Your task to perform on an android device: Search for a new desk on IKEA. Image 0: 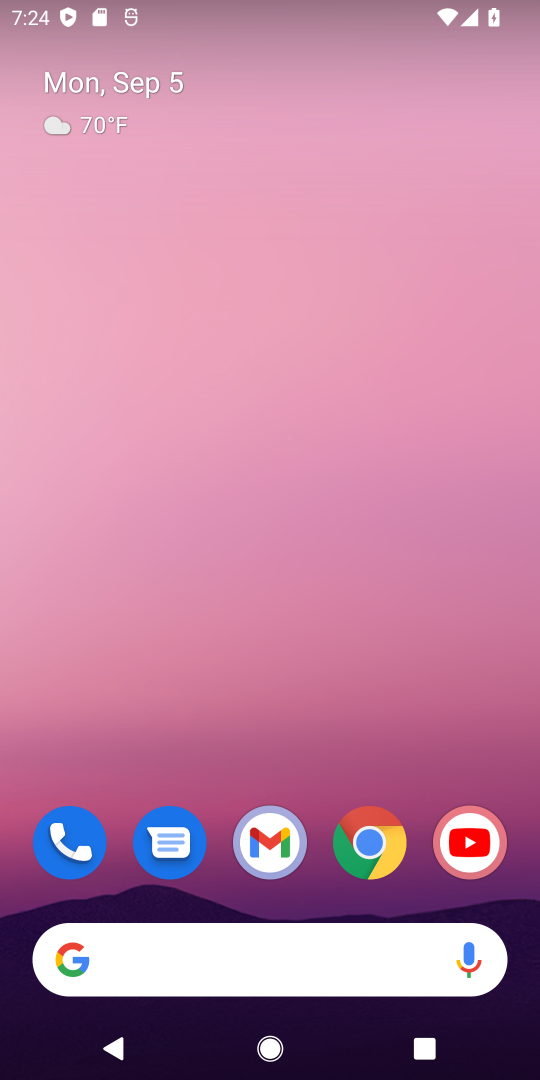
Step 0: click (363, 841)
Your task to perform on an android device: Search for a new desk on IKEA. Image 1: 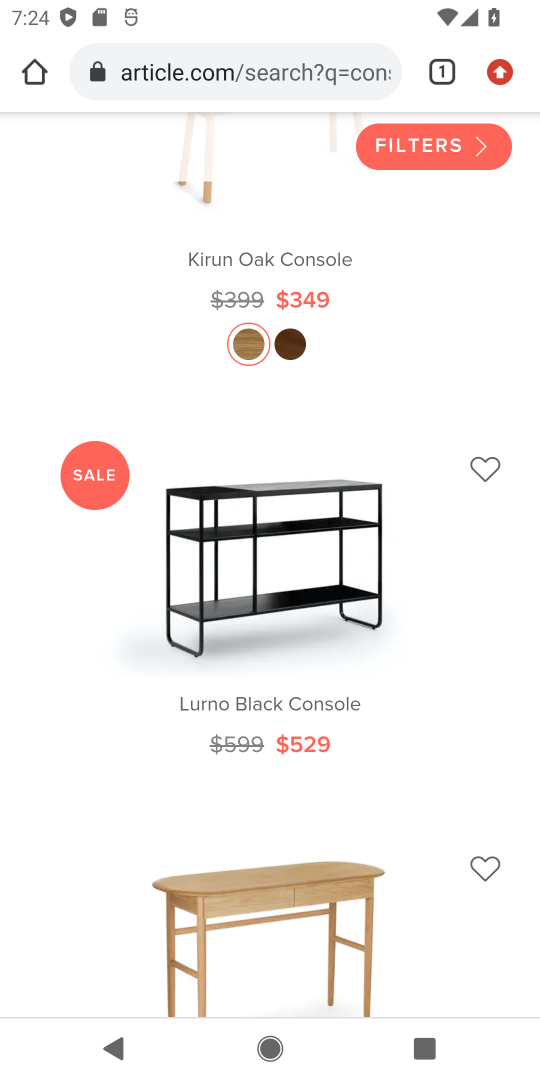
Step 1: click (347, 67)
Your task to perform on an android device: Search for a new desk on IKEA. Image 2: 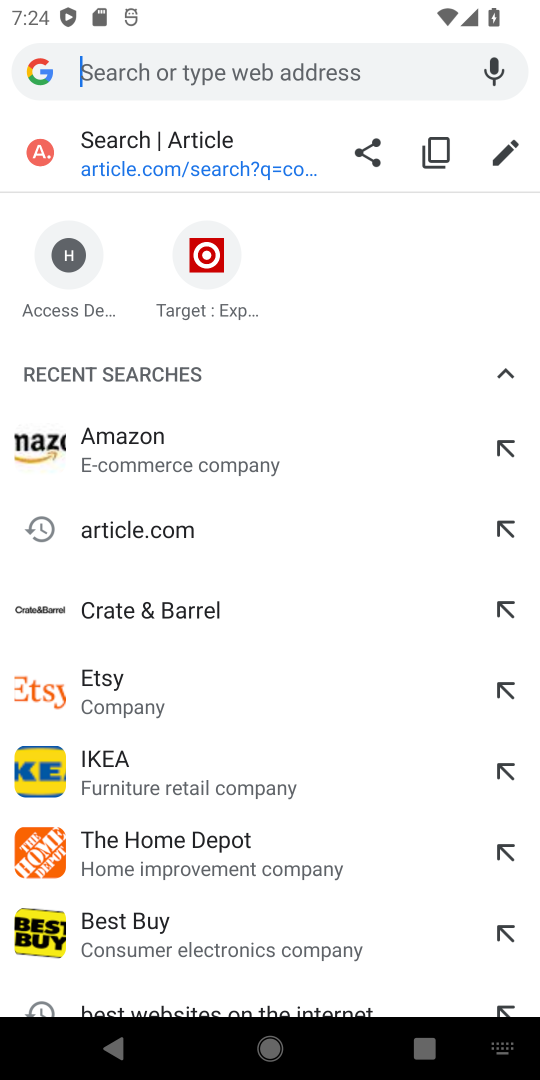
Step 2: type "IKEA"
Your task to perform on an android device: Search for a new desk on IKEA. Image 3: 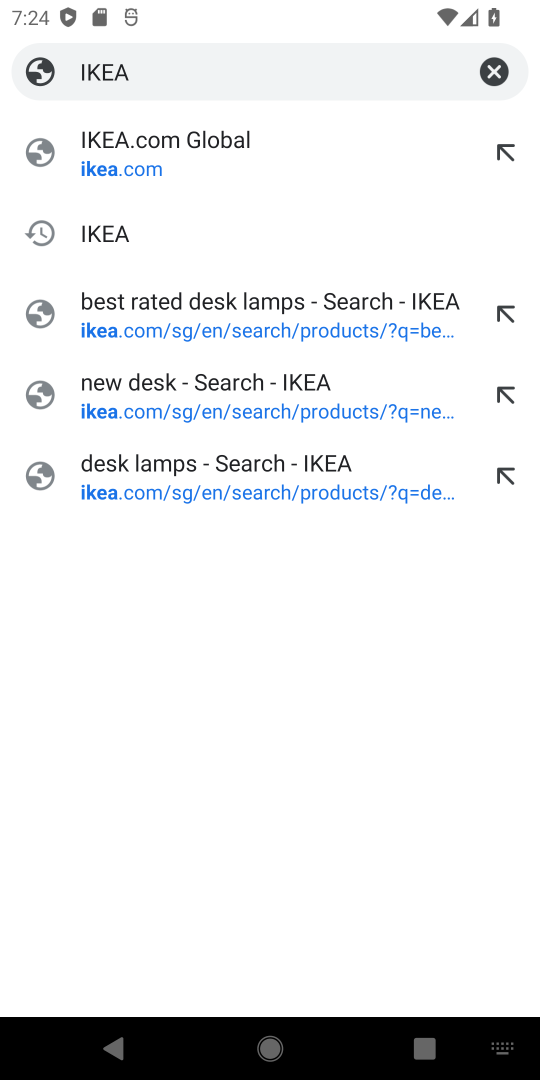
Step 3: click (120, 237)
Your task to perform on an android device: Search for a new desk on IKEA. Image 4: 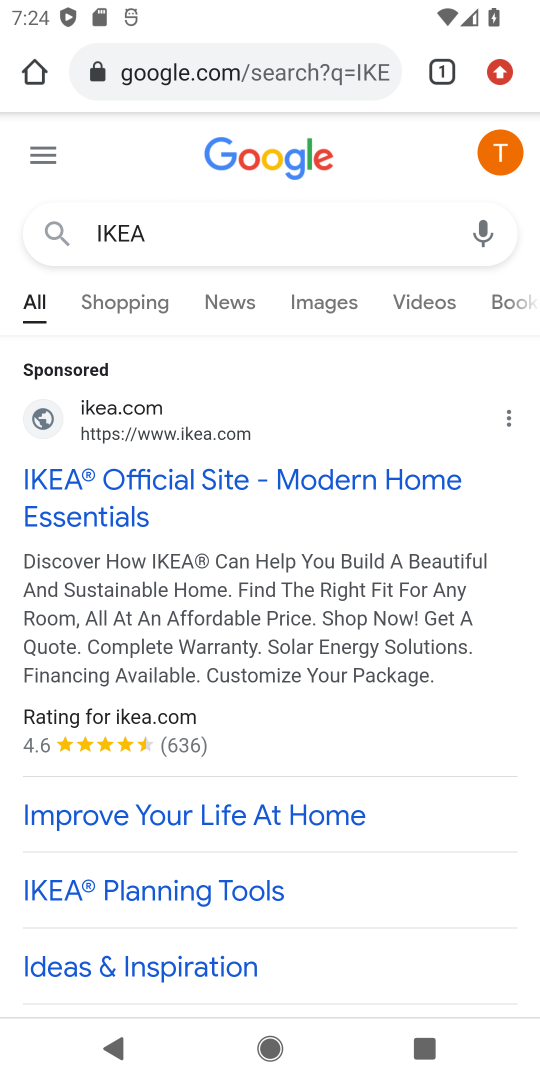
Step 4: click (202, 523)
Your task to perform on an android device: Search for a new desk on IKEA. Image 5: 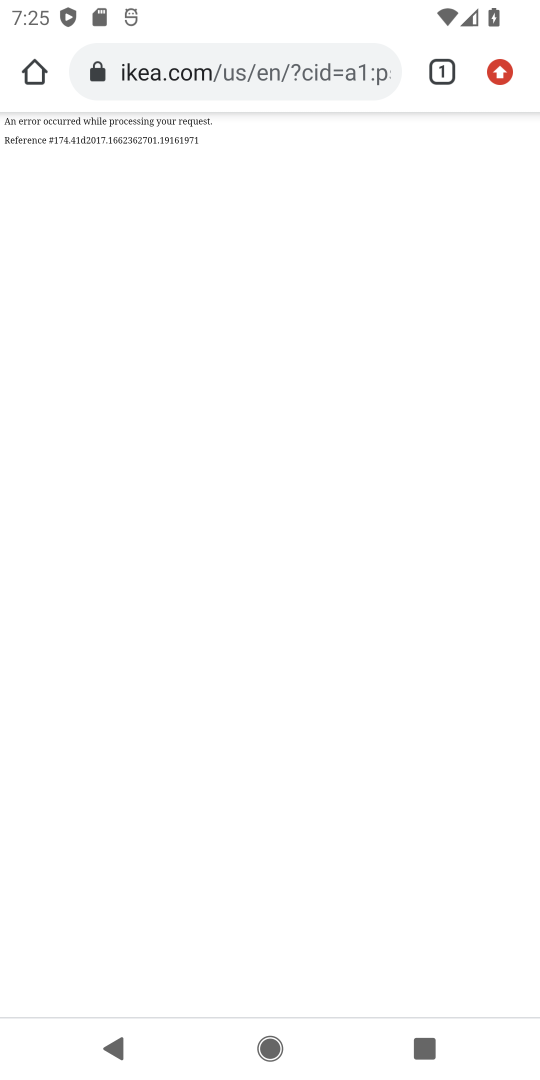
Step 5: press back button
Your task to perform on an android device: Search for a new desk on IKEA. Image 6: 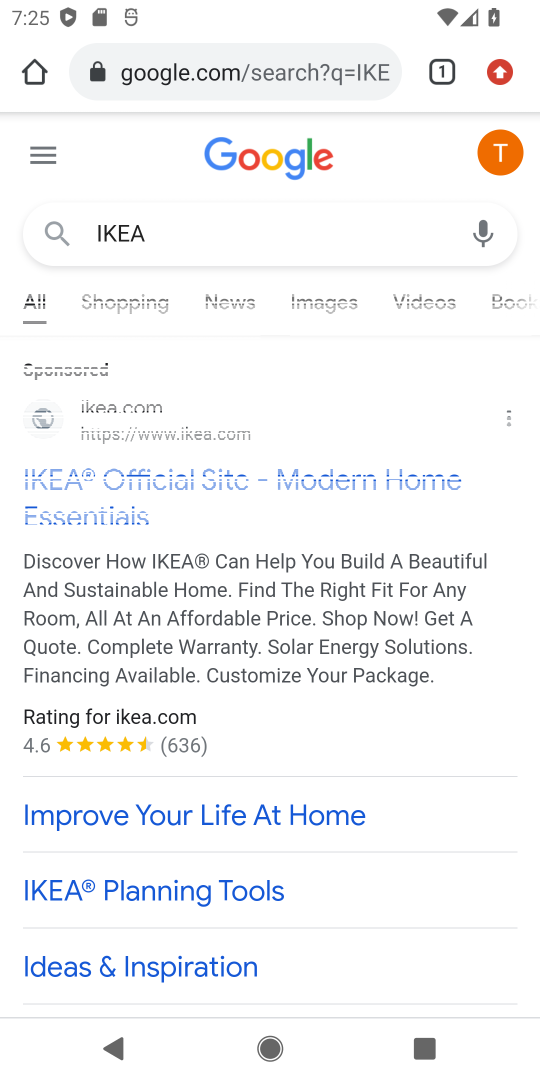
Step 6: drag from (304, 961) to (433, 625)
Your task to perform on an android device: Search for a new desk on IKEA. Image 7: 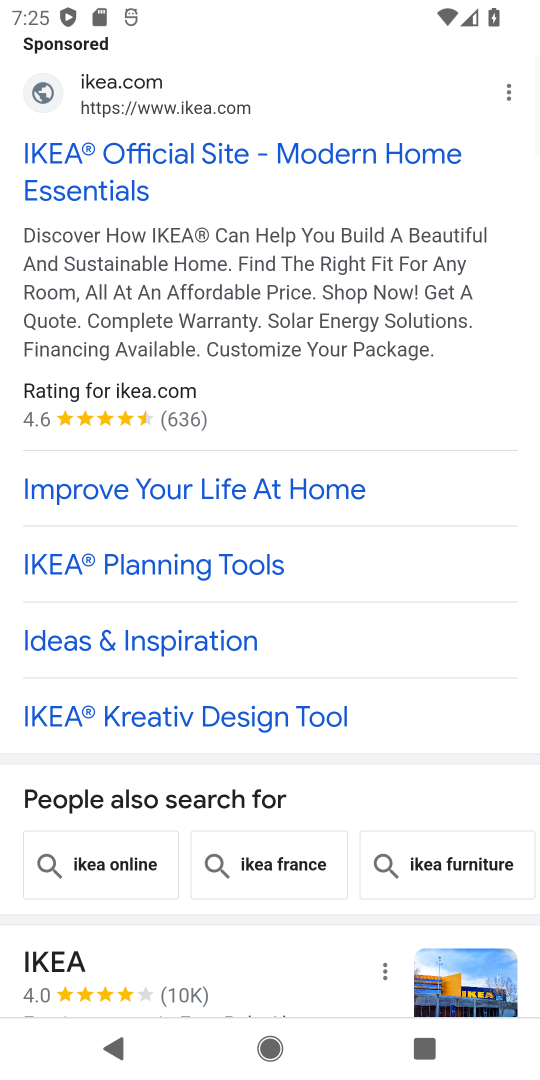
Step 7: drag from (334, 802) to (413, 578)
Your task to perform on an android device: Search for a new desk on IKEA. Image 8: 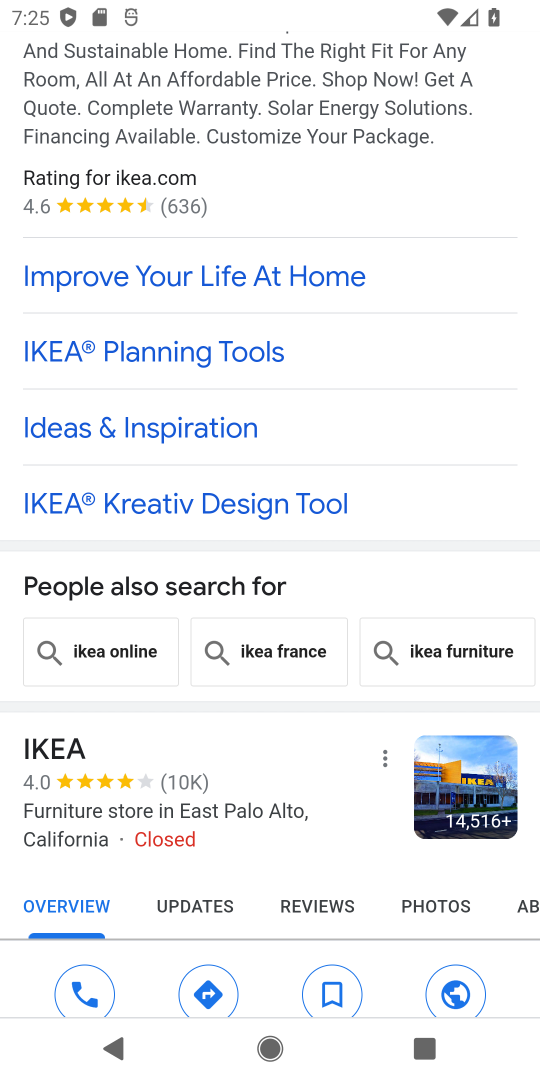
Step 8: drag from (288, 880) to (415, 545)
Your task to perform on an android device: Search for a new desk on IKEA. Image 9: 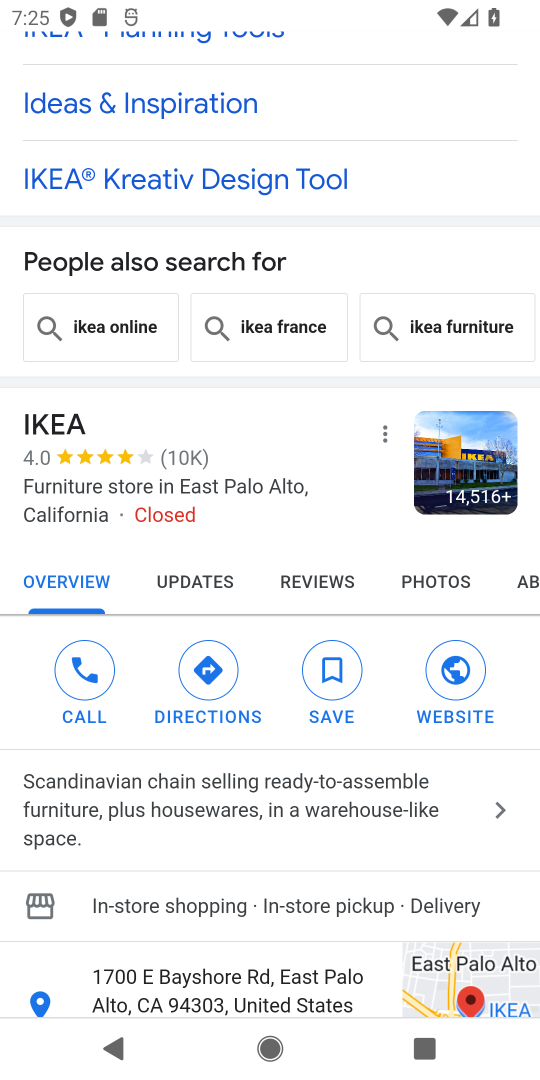
Step 9: drag from (376, 681) to (400, 638)
Your task to perform on an android device: Search for a new desk on IKEA. Image 10: 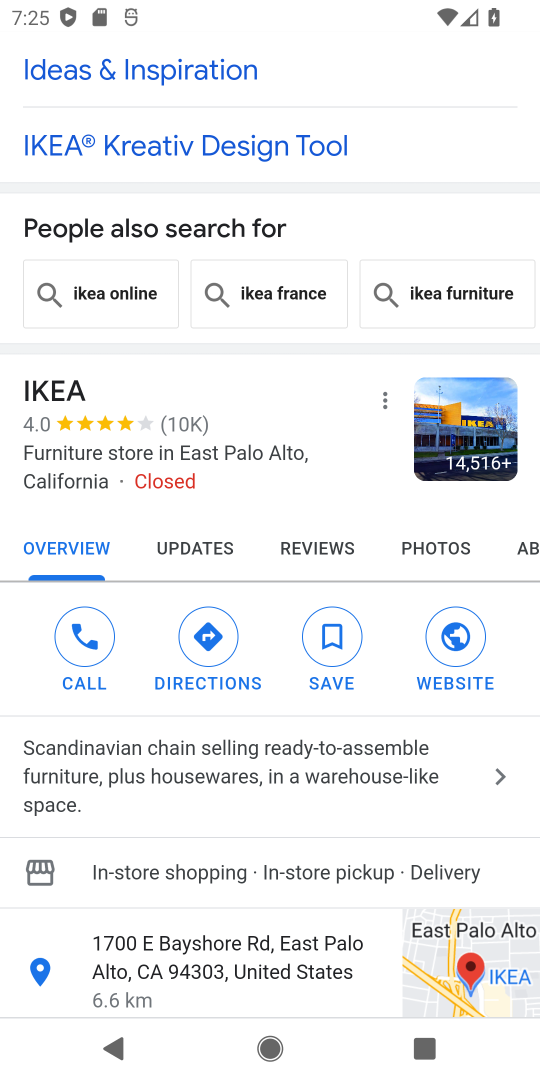
Step 10: drag from (247, 997) to (382, 562)
Your task to perform on an android device: Search for a new desk on IKEA. Image 11: 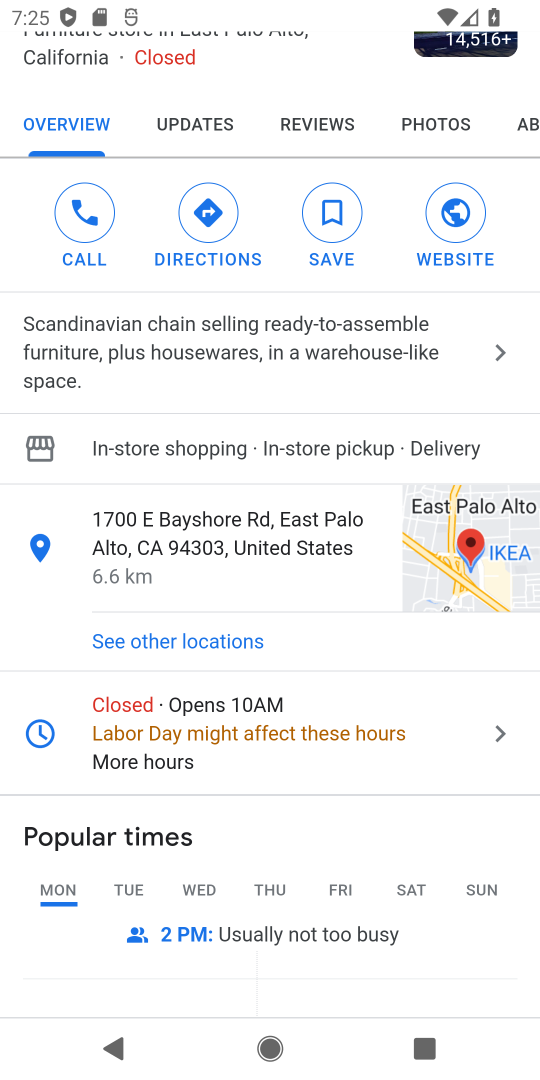
Step 11: drag from (317, 591) to (347, 505)
Your task to perform on an android device: Search for a new desk on IKEA. Image 12: 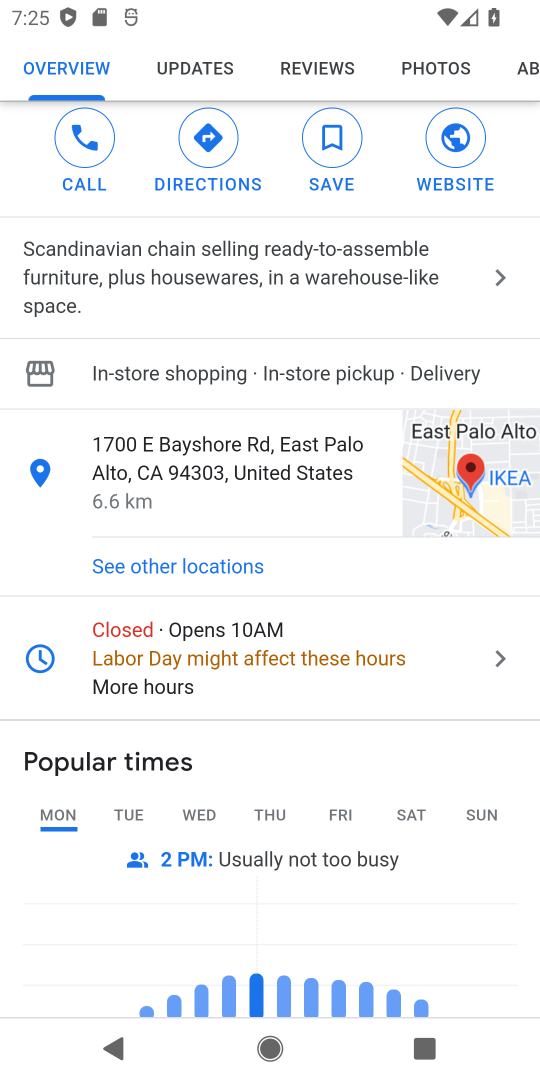
Step 12: drag from (284, 741) to (430, 414)
Your task to perform on an android device: Search for a new desk on IKEA. Image 13: 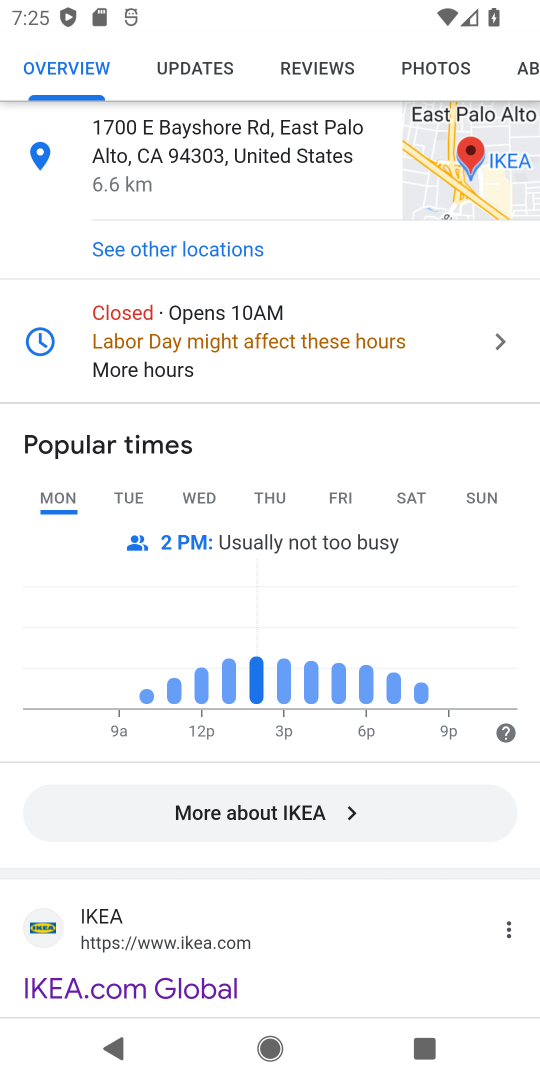
Step 13: drag from (336, 919) to (416, 615)
Your task to perform on an android device: Search for a new desk on IKEA. Image 14: 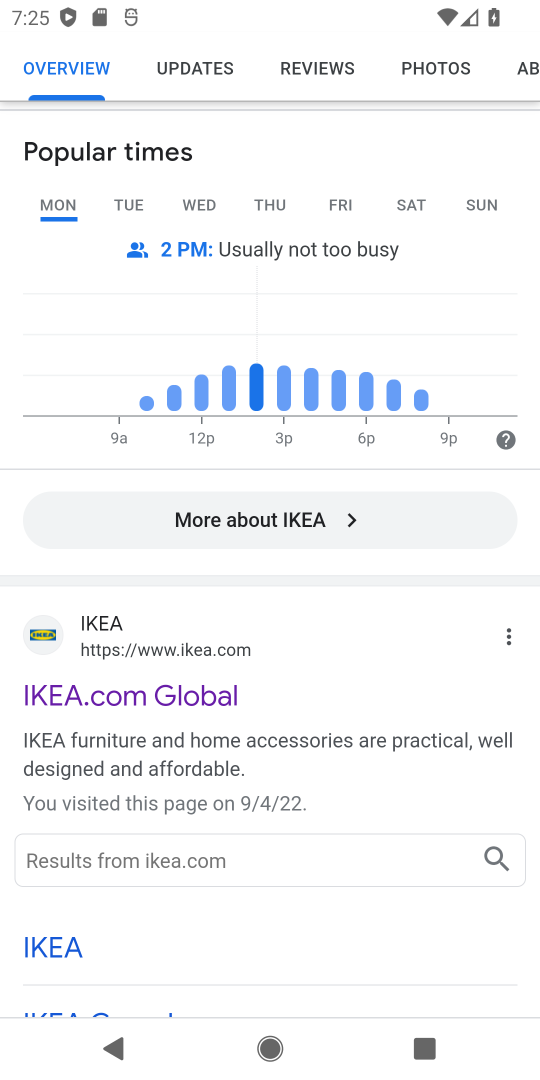
Step 14: click (251, 707)
Your task to perform on an android device: Search for a new desk on IKEA. Image 15: 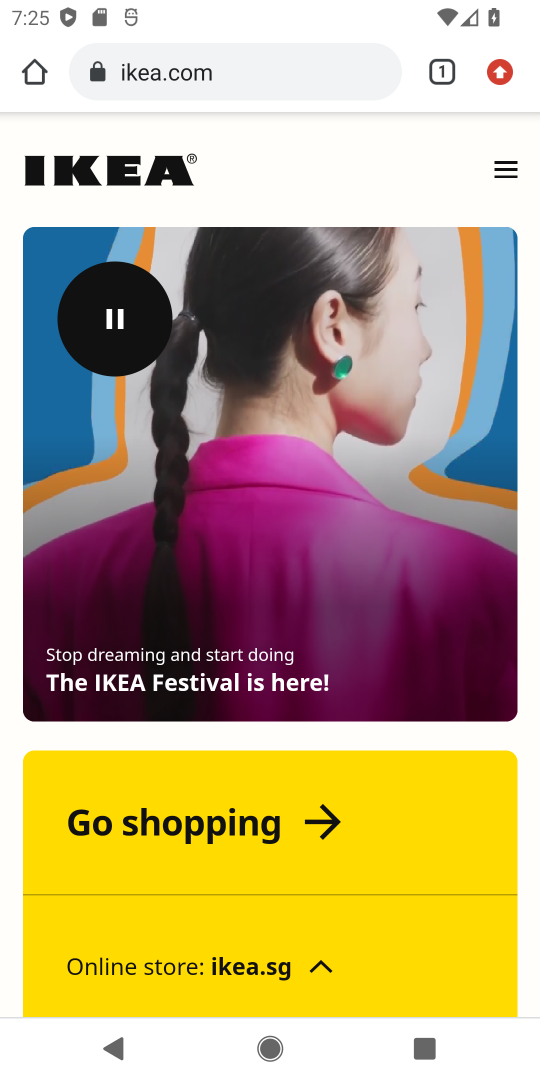
Step 15: click (199, 832)
Your task to perform on an android device: Search for a new desk on IKEA. Image 16: 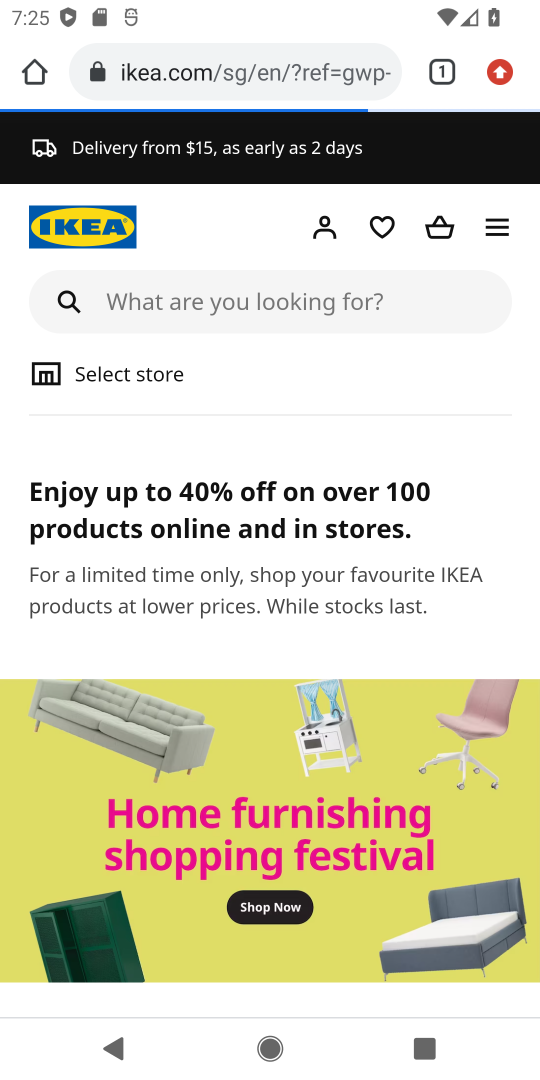
Step 16: click (280, 301)
Your task to perform on an android device: Search for a new desk on IKEA. Image 17: 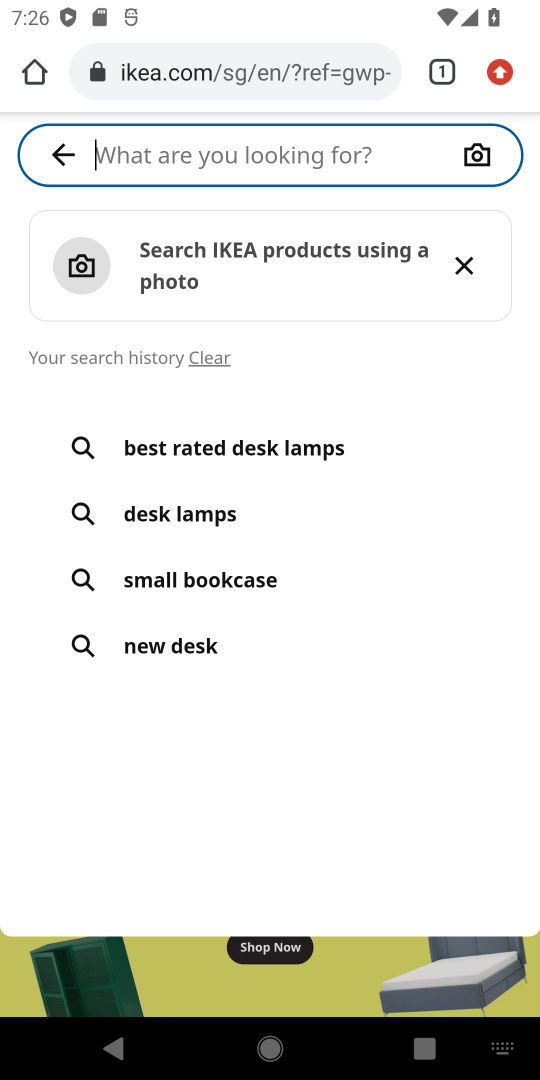
Step 17: type "new desk"
Your task to perform on an android device: Search for a new desk on IKEA. Image 18: 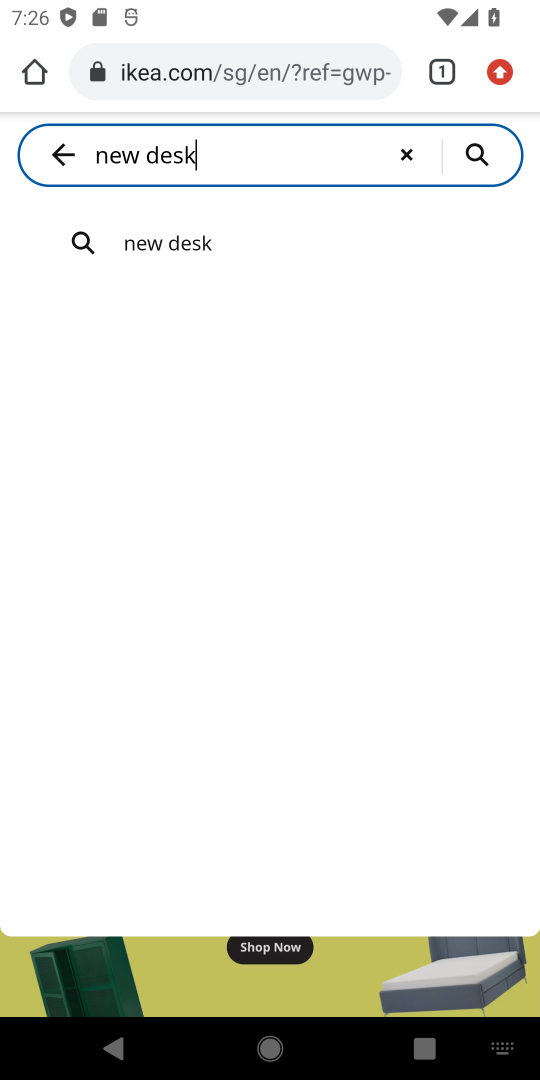
Step 18: click (474, 157)
Your task to perform on an android device: Search for a new desk on IKEA. Image 19: 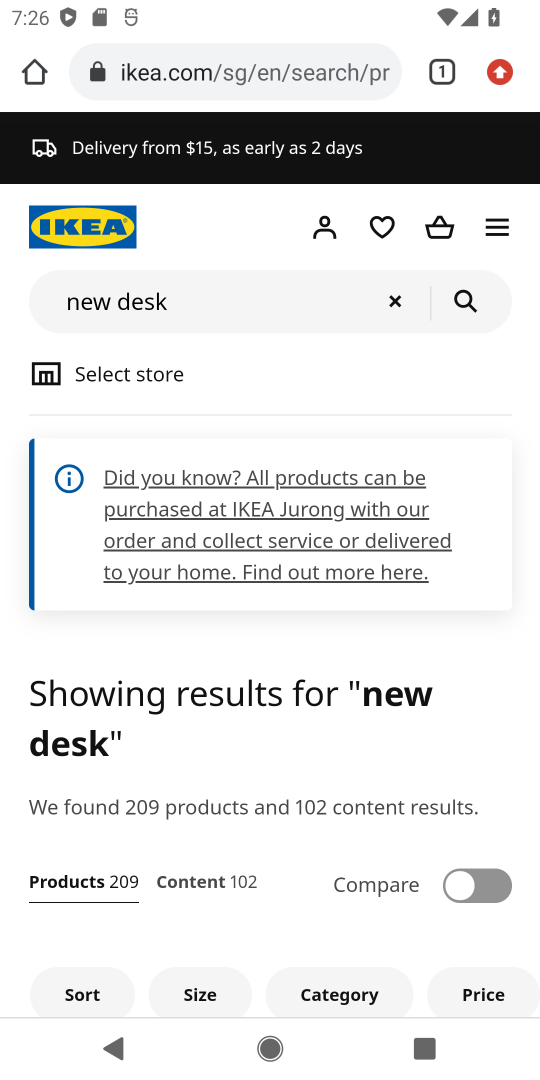
Step 19: task complete